Your task to perform on an android device: turn off wifi Image 0: 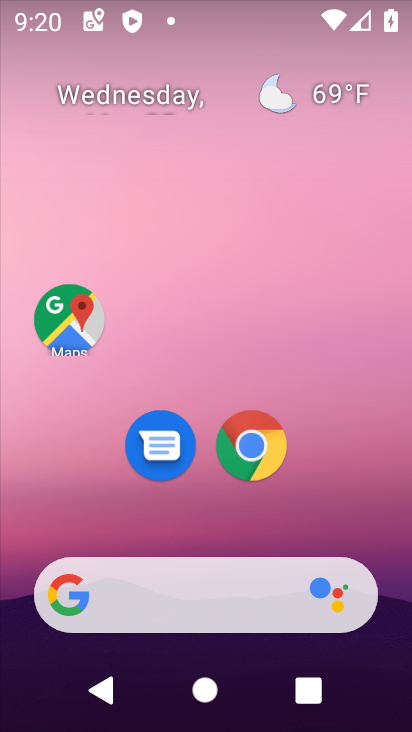
Step 0: drag from (215, 10) to (227, 461)
Your task to perform on an android device: turn off wifi Image 1: 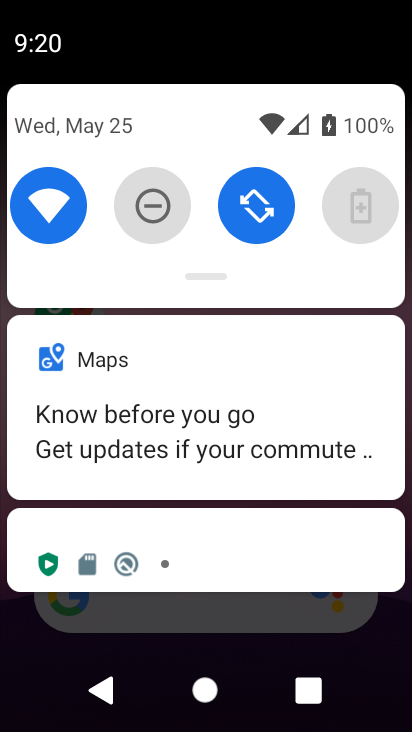
Step 1: click (56, 196)
Your task to perform on an android device: turn off wifi Image 2: 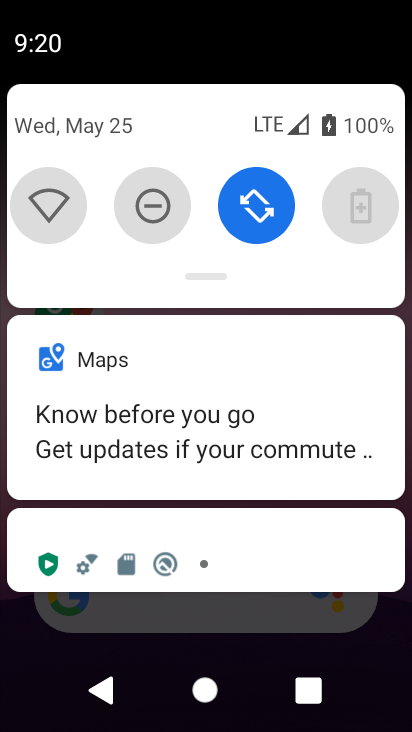
Step 2: task complete